Your task to perform on an android device: empty trash in the gmail app Image 0: 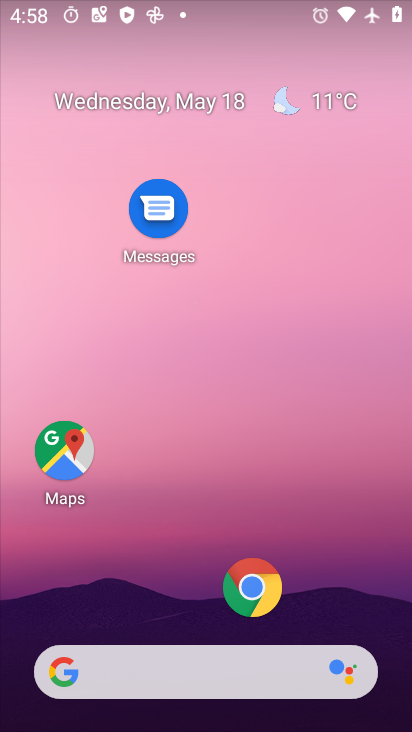
Step 0: drag from (313, 656) to (322, 331)
Your task to perform on an android device: empty trash in the gmail app Image 1: 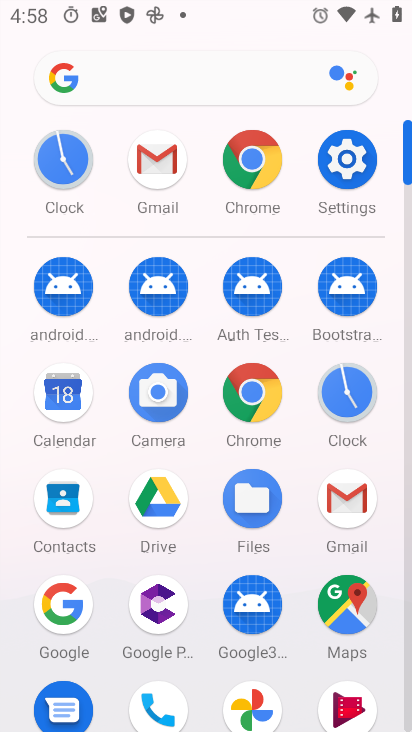
Step 1: click (351, 503)
Your task to perform on an android device: empty trash in the gmail app Image 2: 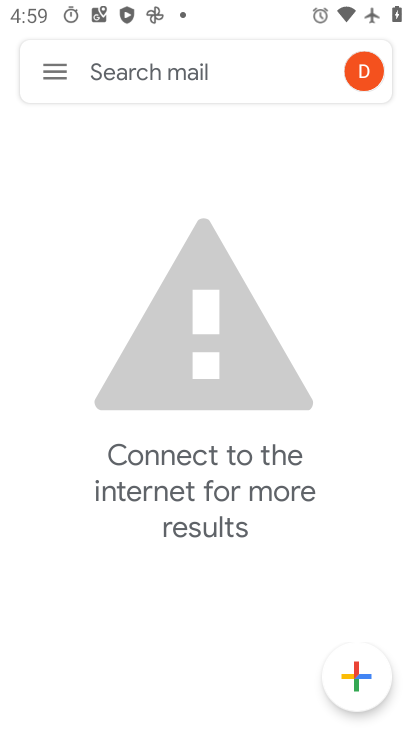
Step 2: click (62, 79)
Your task to perform on an android device: empty trash in the gmail app Image 3: 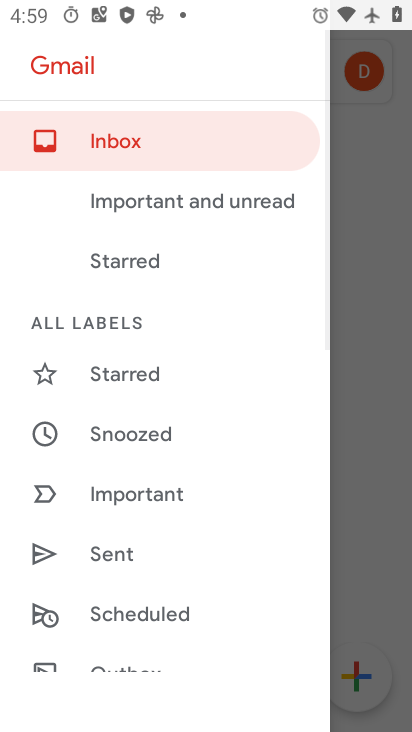
Step 3: drag from (154, 601) to (168, 444)
Your task to perform on an android device: empty trash in the gmail app Image 4: 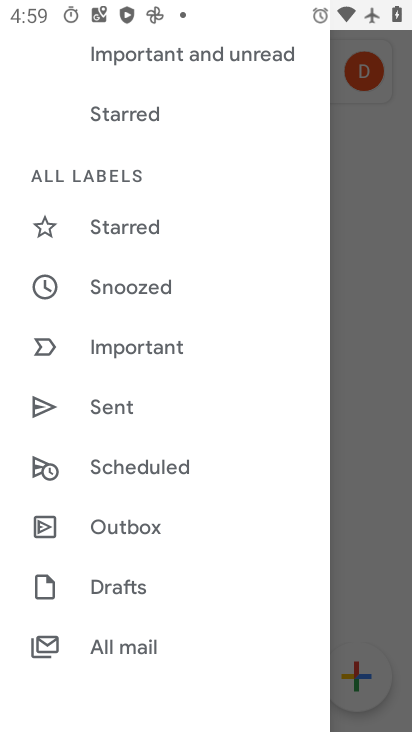
Step 4: drag from (135, 659) to (147, 536)
Your task to perform on an android device: empty trash in the gmail app Image 5: 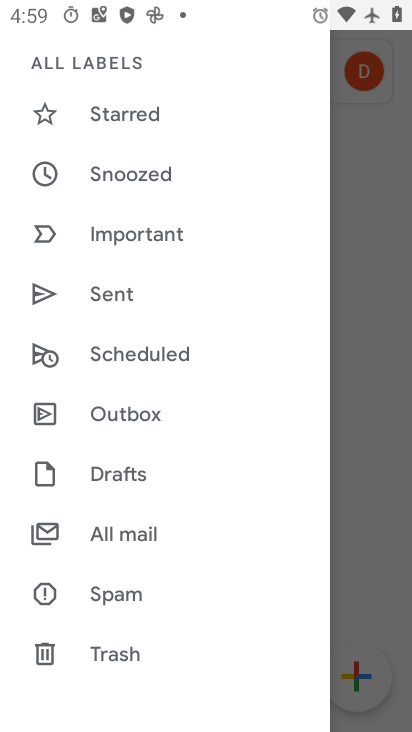
Step 5: click (136, 655)
Your task to perform on an android device: empty trash in the gmail app Image 6: 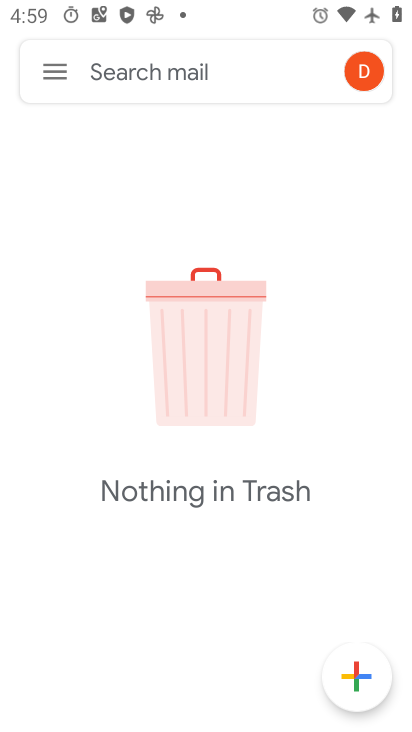
Step 6: task complete